Your task to perform on an android device: refresh tabs in the chrome app Image 0: 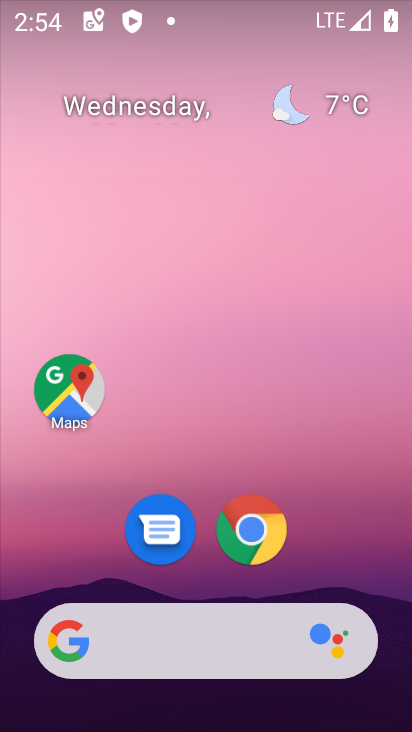
Step 0: drag from (376, 515) to (288, 64)
Your task to perform on an android device: refresh tabs in the chrome app Image 1: 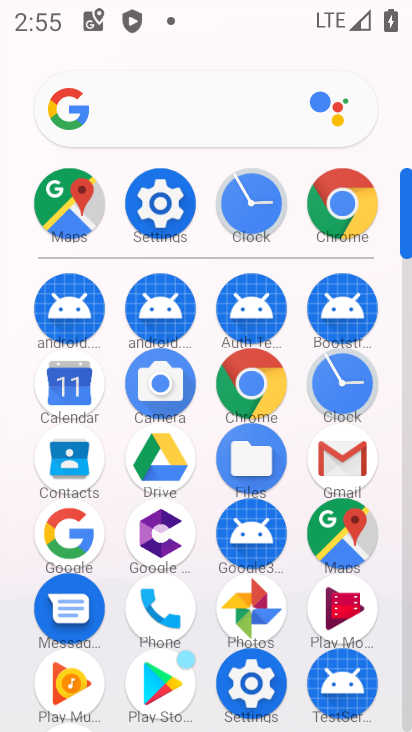
Step 1: click (336, 220)
Your task to perform on an android device: refresh tabs in the chrome app Image 2: 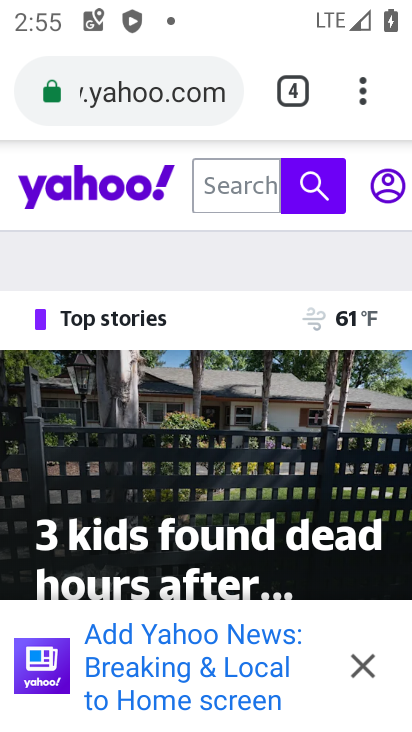
Step 2: task complete